Your task to perform on an android device: Look up the best rated power drills on Lowes.com Image 0: 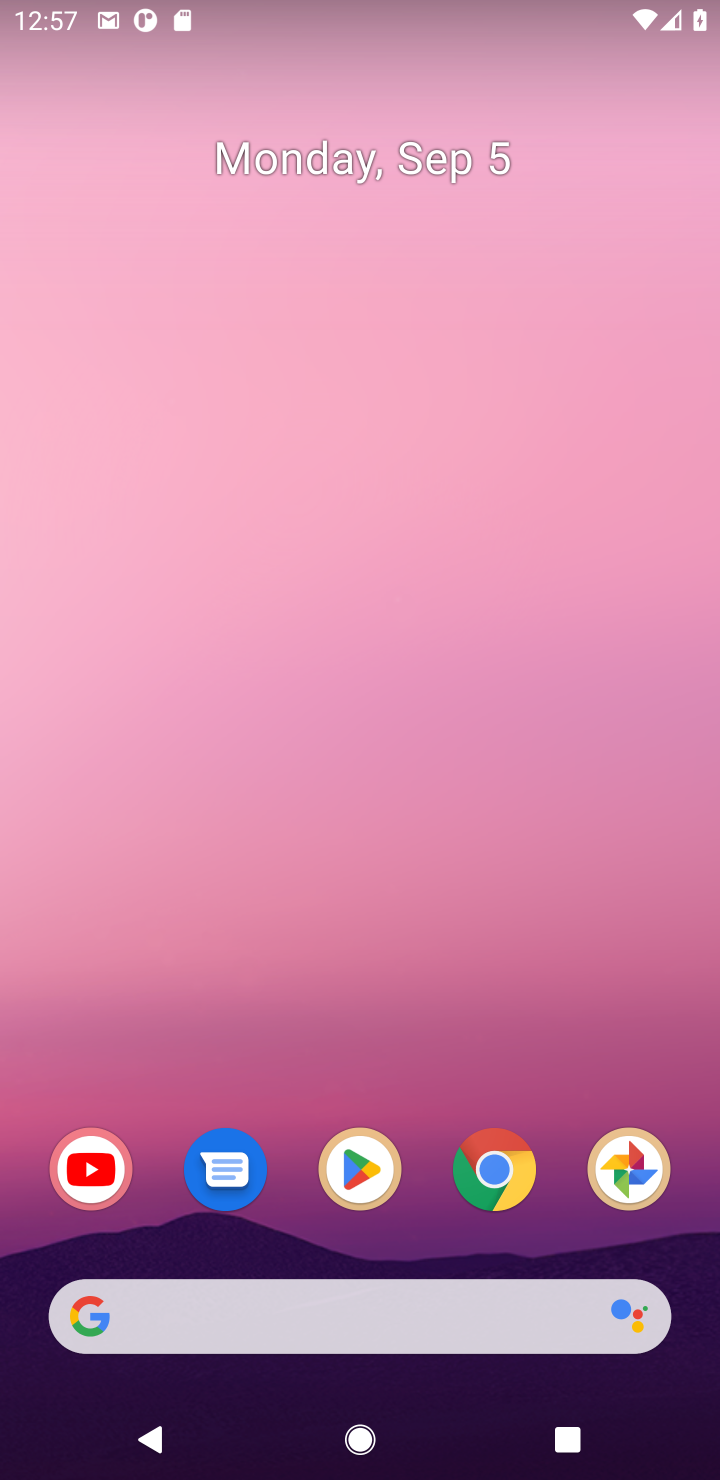
Step 0: click (331, 1165)
Your task to perform on an android device: Look up the best rated power drills on Lowes.com Image 1: 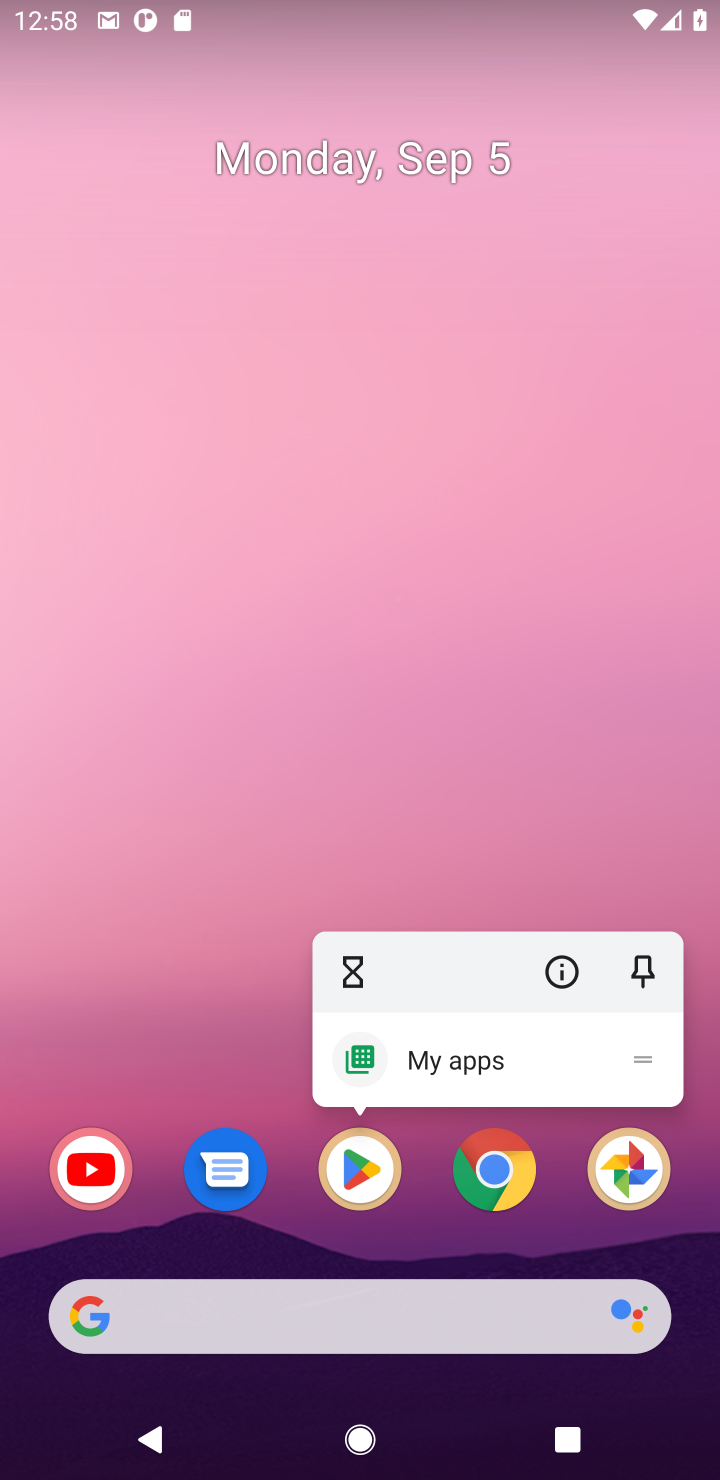
Step 1: click (74, 1179)
Your task to perform on an android device: Look up the best rated power drills on Lowes.com Image 2: 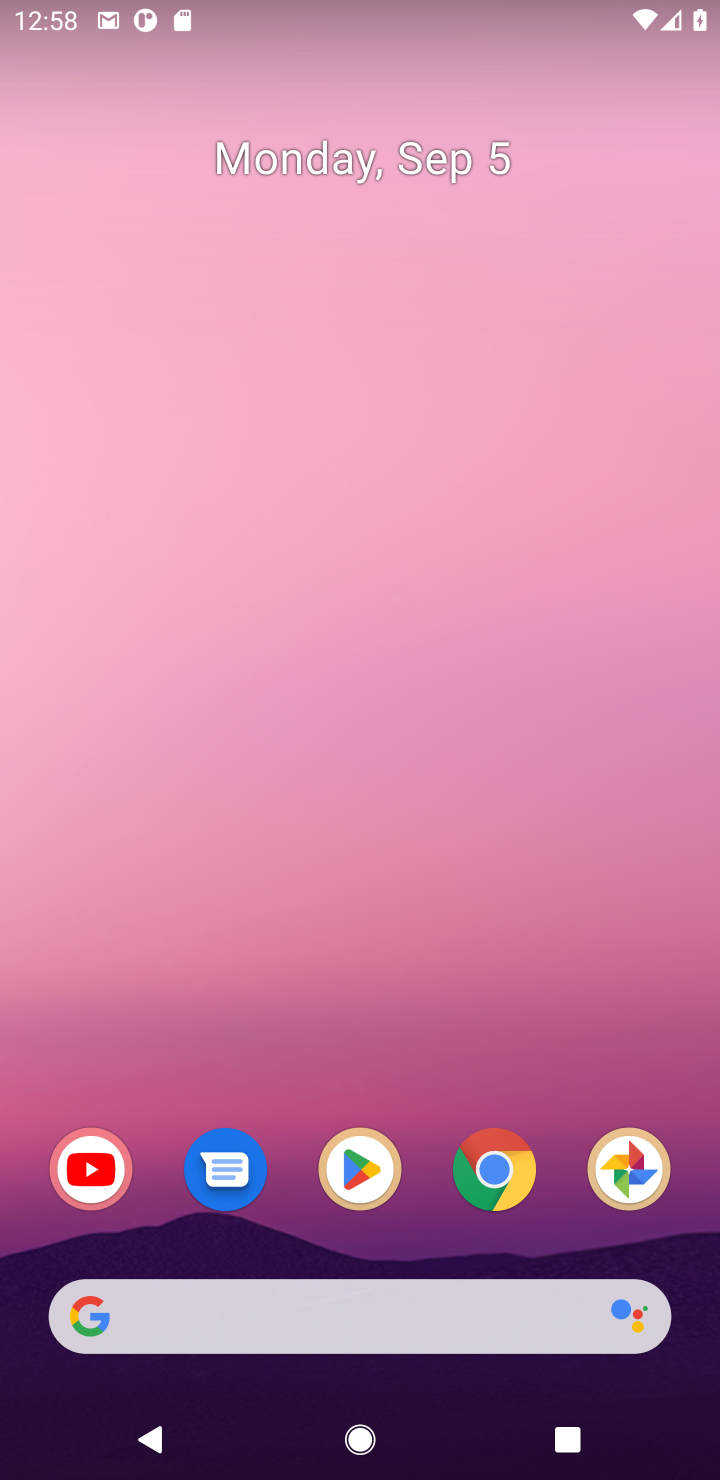
Step 2: click (111, 1176)
Your task to perform on an android device: Look up the best rated power drills on Lowes.com Image 3: 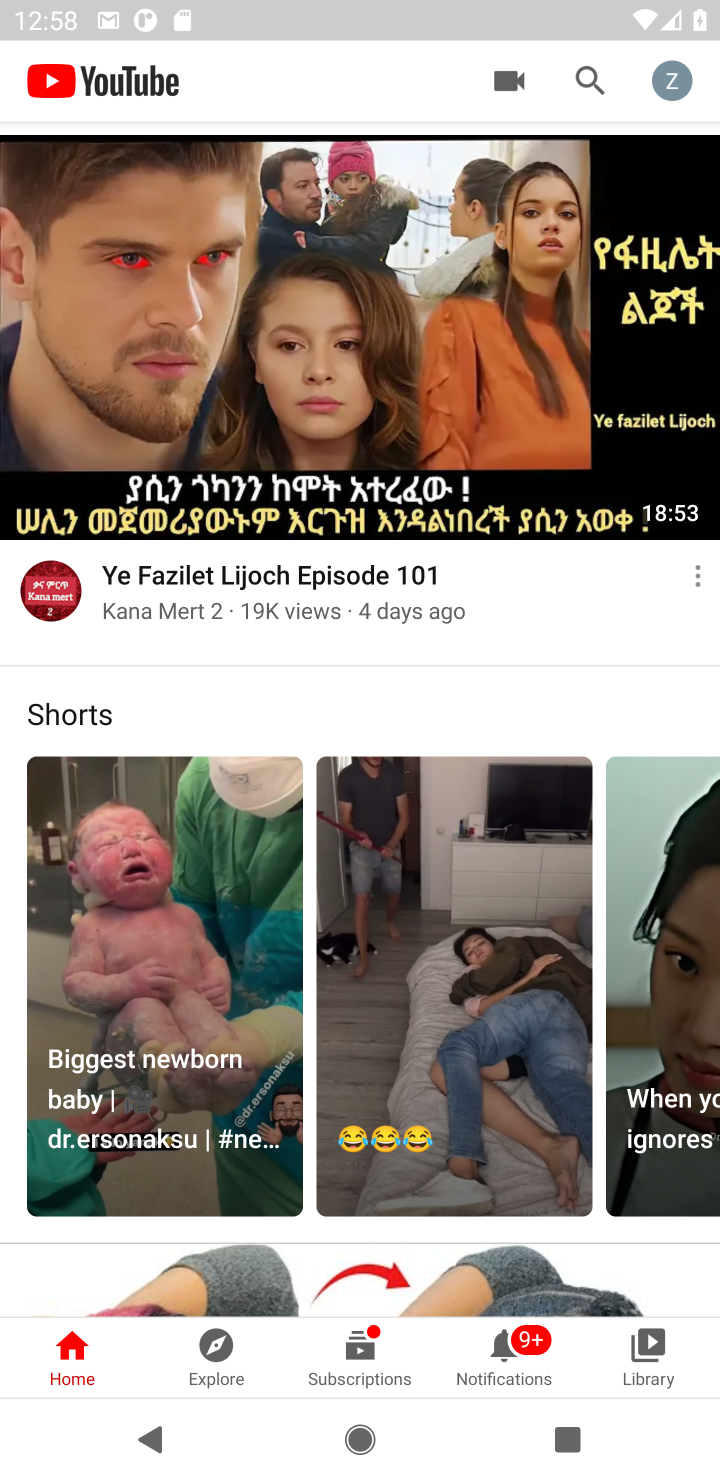
Step 3: task complete